Your task to perform on an android device: read, delete, or share a saved page in the chrome app Image 0: 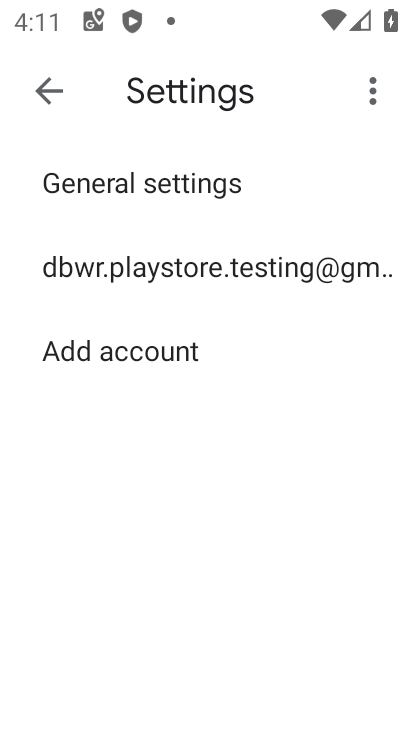
Step 0: press home button
Your task to perform on an android device: read, delete, or share a saved page in the chrome app Image 1: 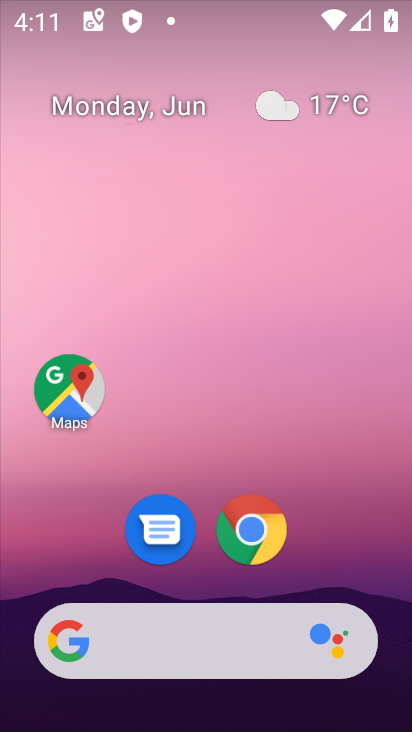
Step 1: click (252, 531)
Your task to perform on an android device: read, delete, or share a saved page in the chrome app Image 2: 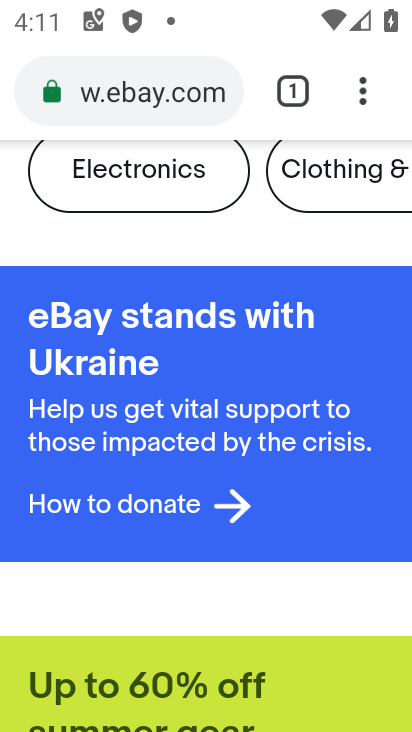
Step 2: click (360, 88)
Your task to perform on an android device: read, delete, or share a saved page in the chrome app Image 3: 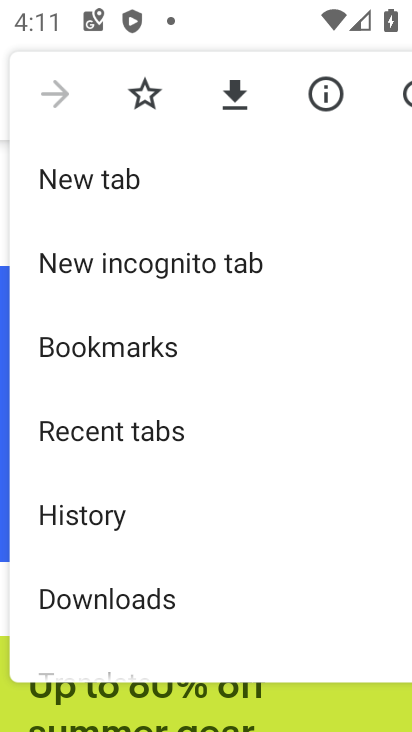
Step 3: click (95, 596)
Your task to perform on an android device: read, delete, or share a saved page in the chrome app Image 4: 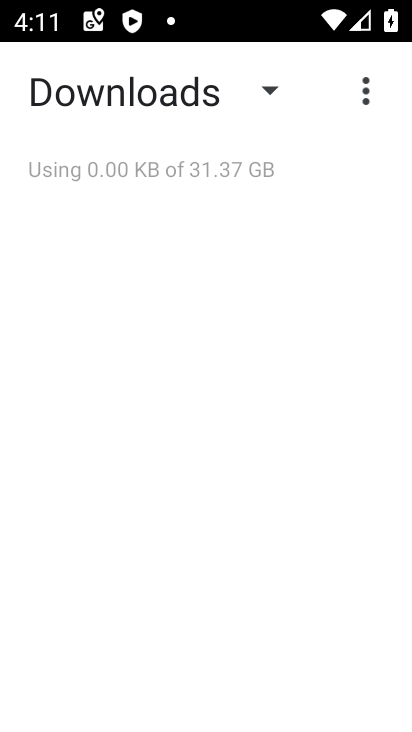
Step 4: task complete